Your task to perform on an android device: turn notification dots on Image 0: 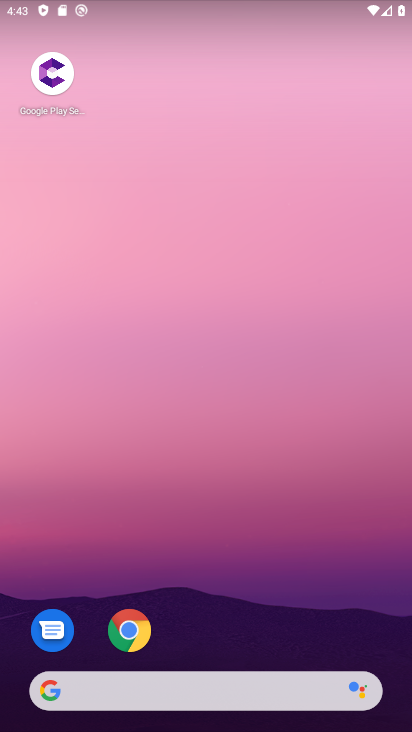
Step 0: drag from (180, 664) to (237, 295)
Your task to perform on an android device: turn notification dots on Image 1: 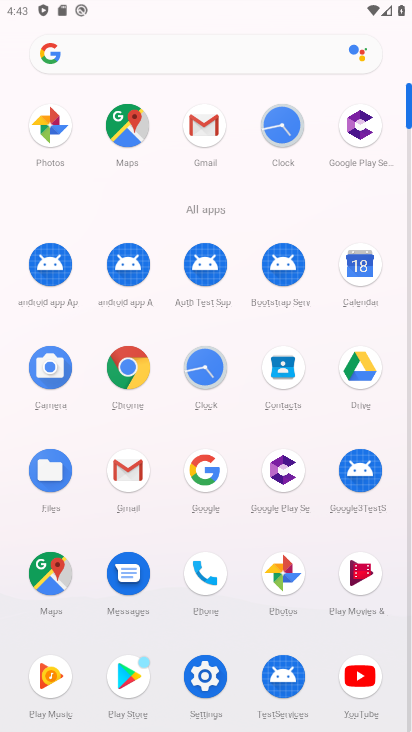
Step 1: click (199, 681)
Your task to perform on an android device: turn notification dots on Image 2: 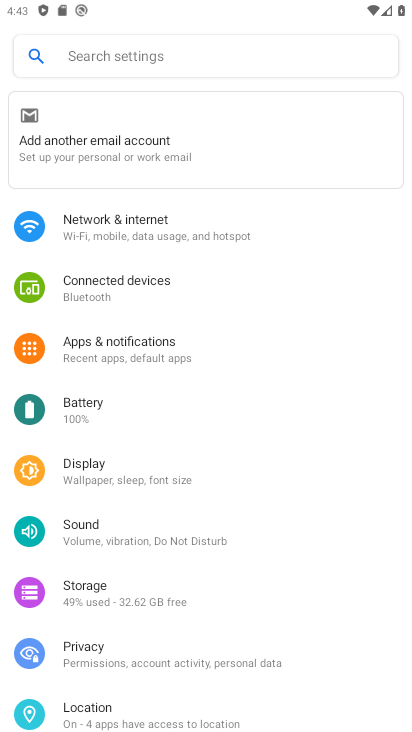
Step 2: click (108, 348)
Your task to perform on an android device: turn notification dots on Image 3: 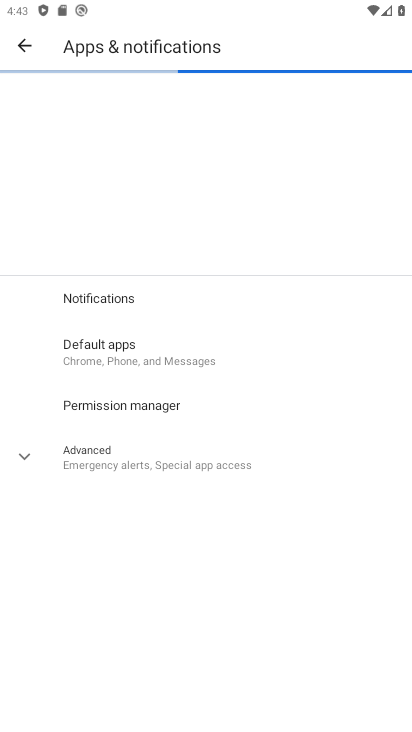
Step 3: click (108, 348)
Your task to perform on an android device: turn notification dots on Image 4: 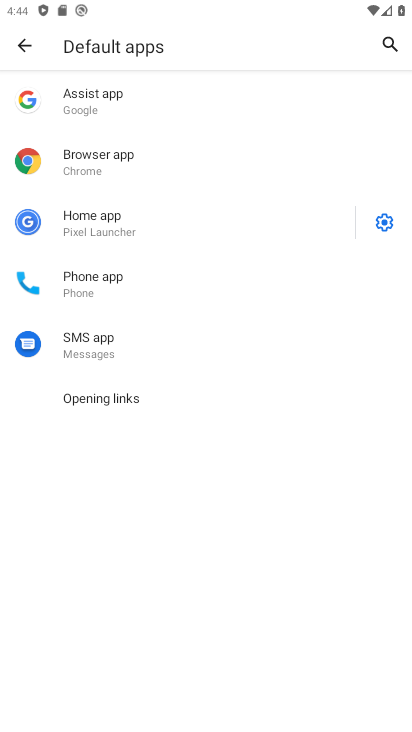
Step 4: click (30, 47)
Your task to perform on an android device: turn notification dots on Image 5: 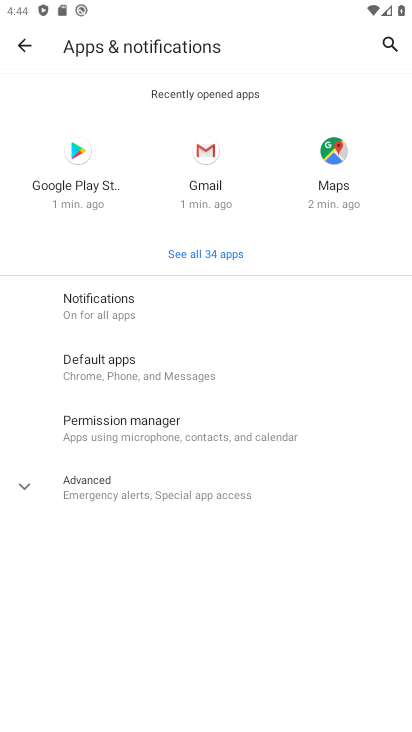
Step 5: click (77, 306)
Your task to perform on an android device: turn notification dots on Image 6: 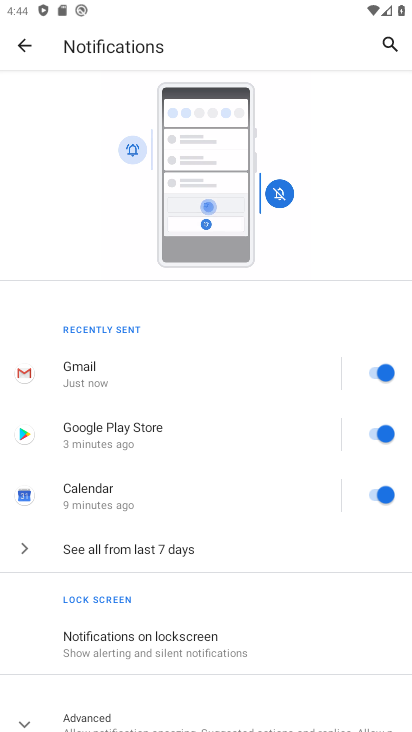
Step 6: drag from (127, 681) to (185, 294)
Your task to perform on an android device: turn notification dots on Image 7: 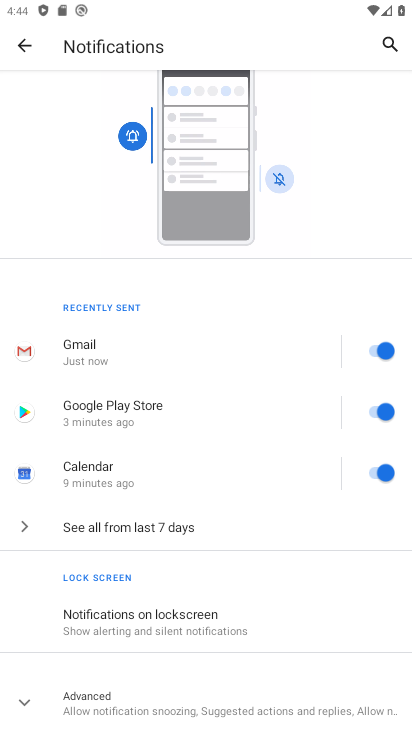
Step 7: drag from (223, 664) to (252, 351)
Your task to perform on an android device: turn notification dots on Image 8: 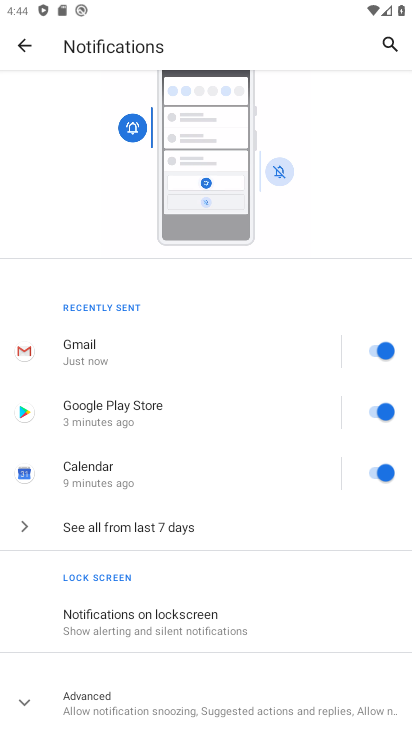
Step 8: click (126, 527)
Your task to perform on an android device: turn notification dots on Image 9: 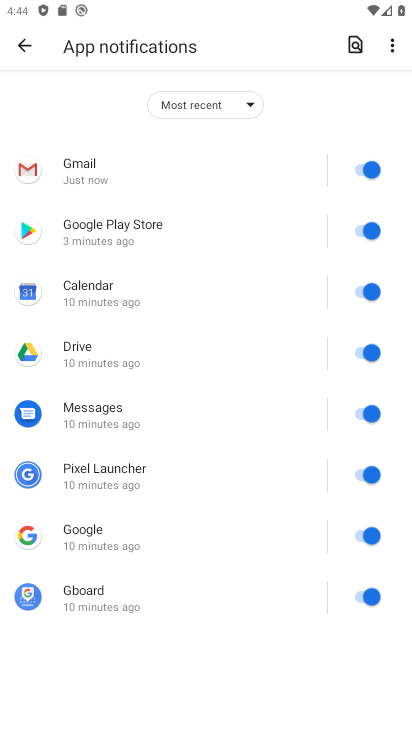
Step 9: click (21, 45)
Your task to perform on an android device: turn notification dots on Image 10: 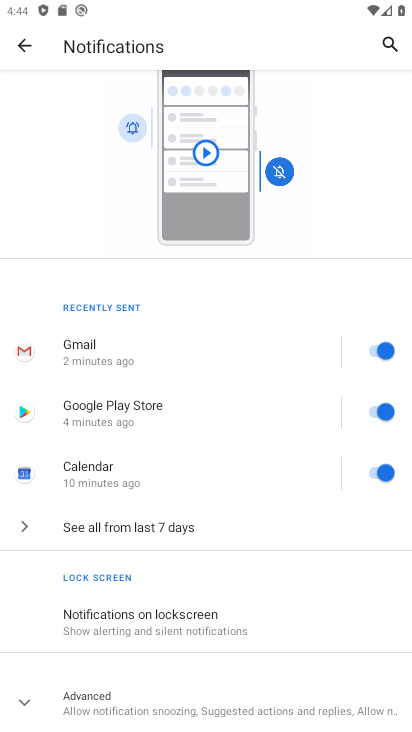
Step 10: click (100, 701)
Your task to perform on an android device: turn notification dots on Image 11: 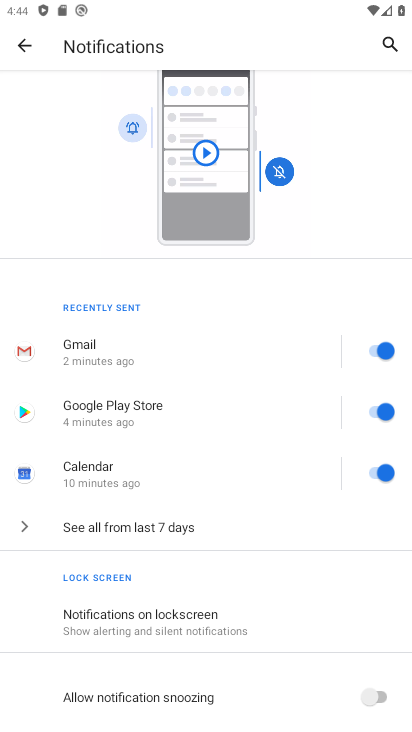
Step 11: task complete